Your task to perform on an android device: turn on the 24-hour format for clock Image 0: 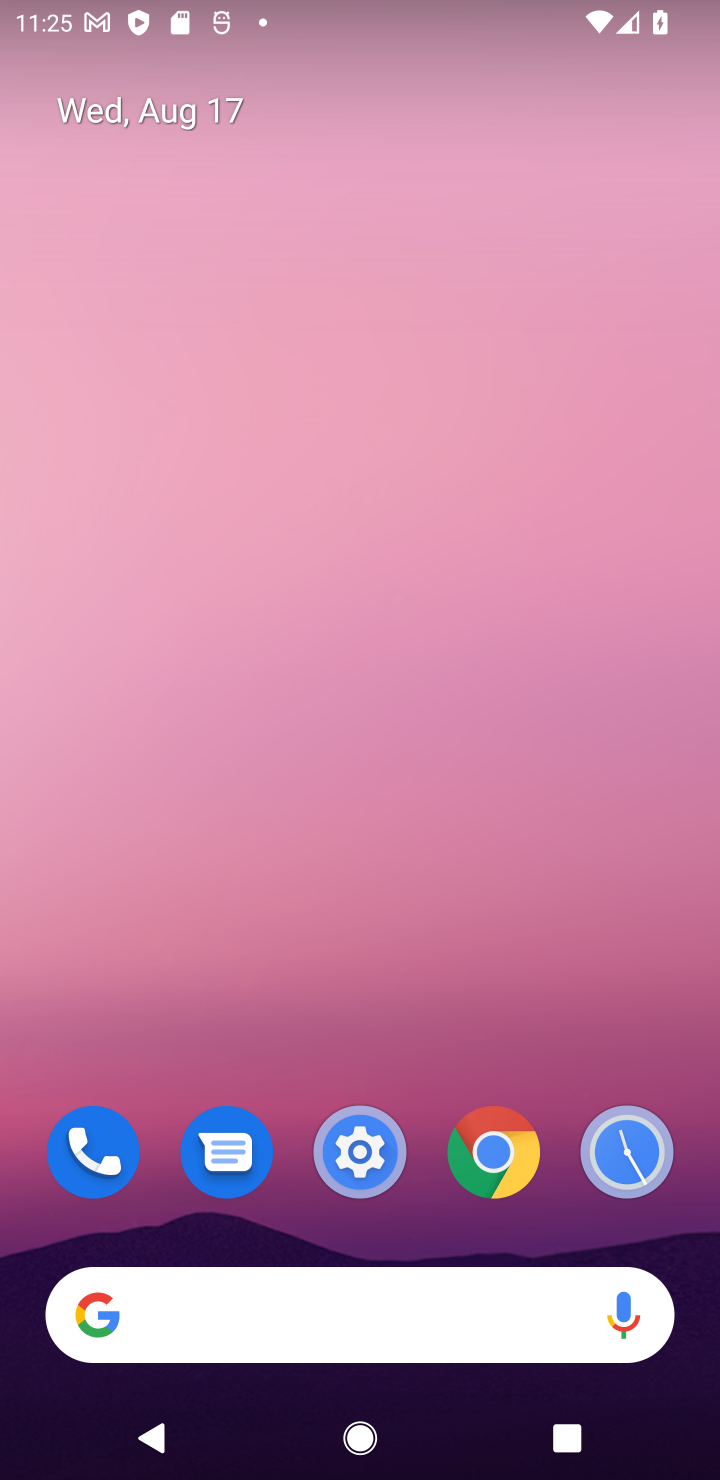
Step 0: drag from (692, 1224) to (338, 90)
Your task to perform on an android device: turn on the 24-hour format for clock Image 1: 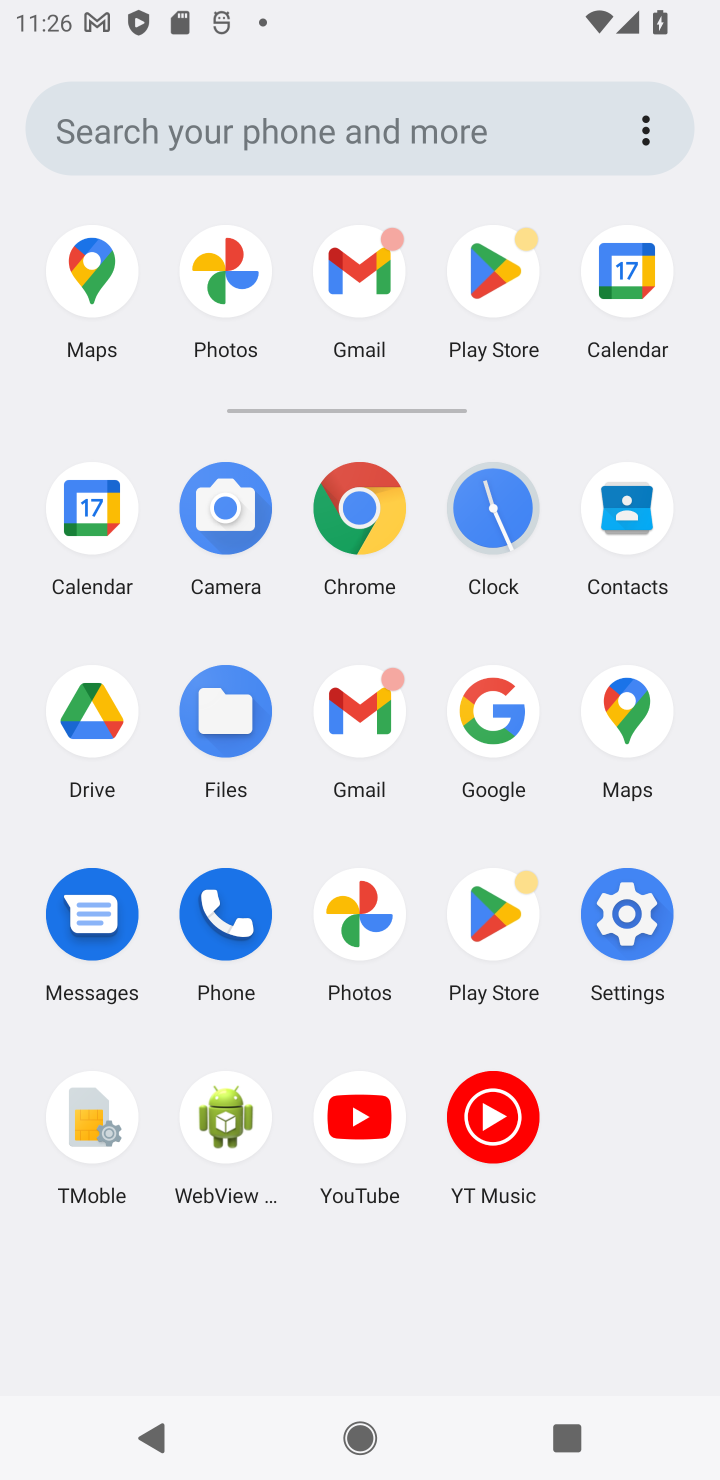
Step 1: click (462, 535)
Your task to perform on an android device: turn on the 24-hour format for clock Image 2: 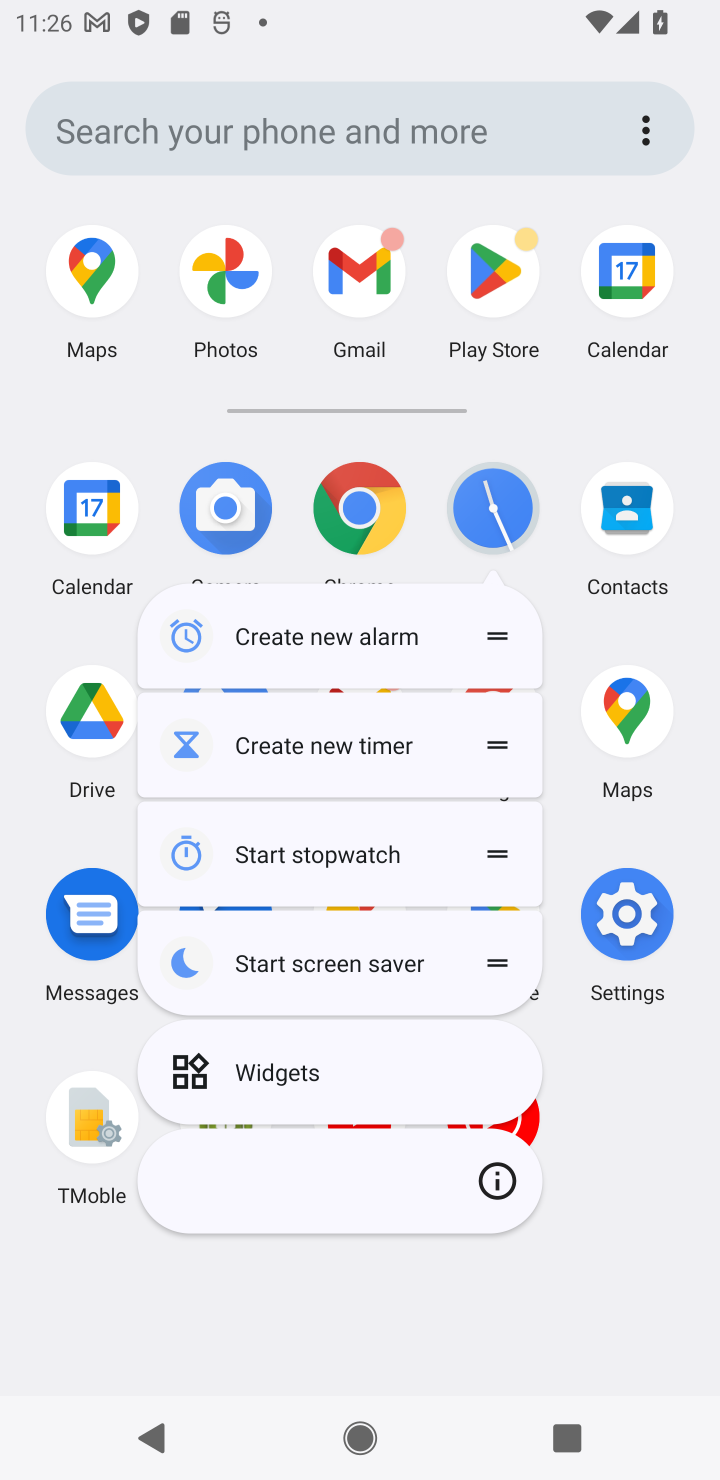
Step 2: click (504, 517)
Your task to perform on an android device: turn on the 24-hour format for clock Image 3: 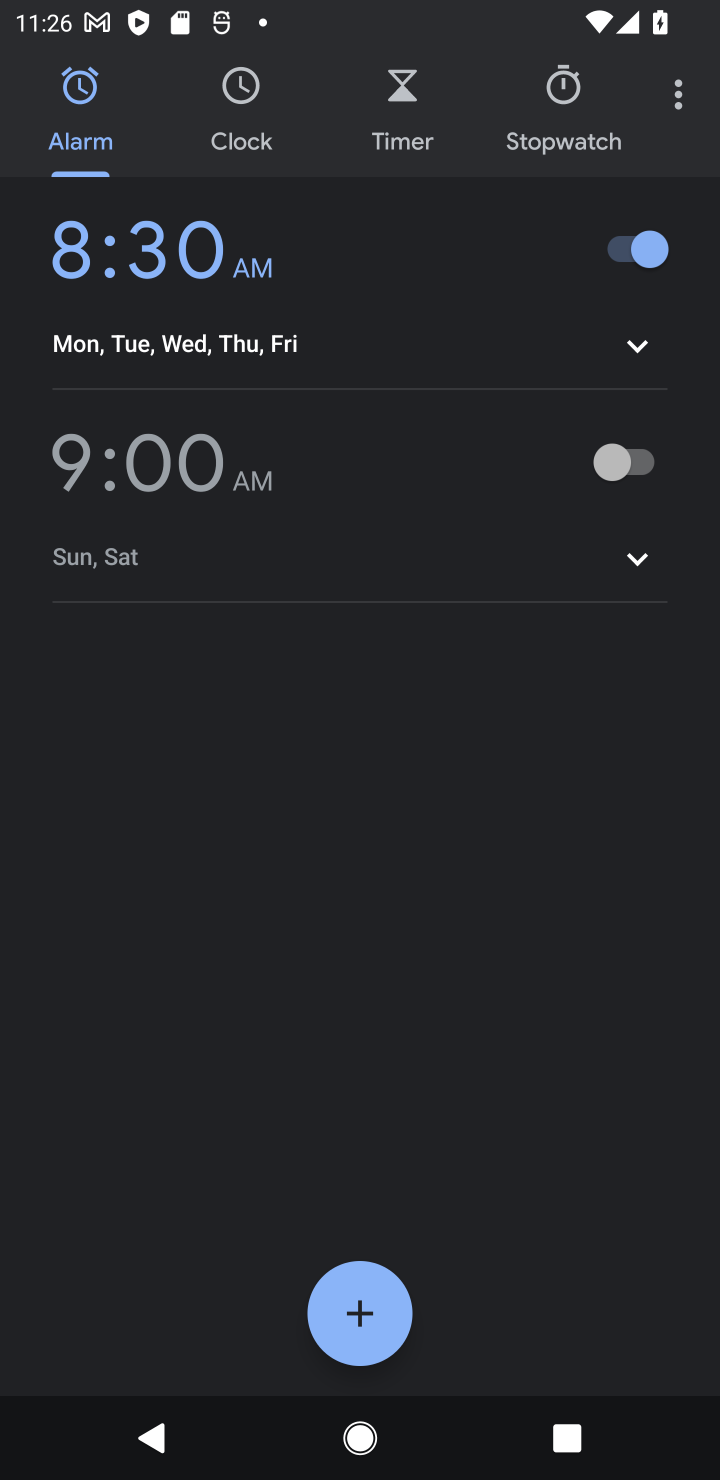
Step 3: click (681, 107)
Your task to perform on an android device: turn on the 24-hour format for clock Image 4: 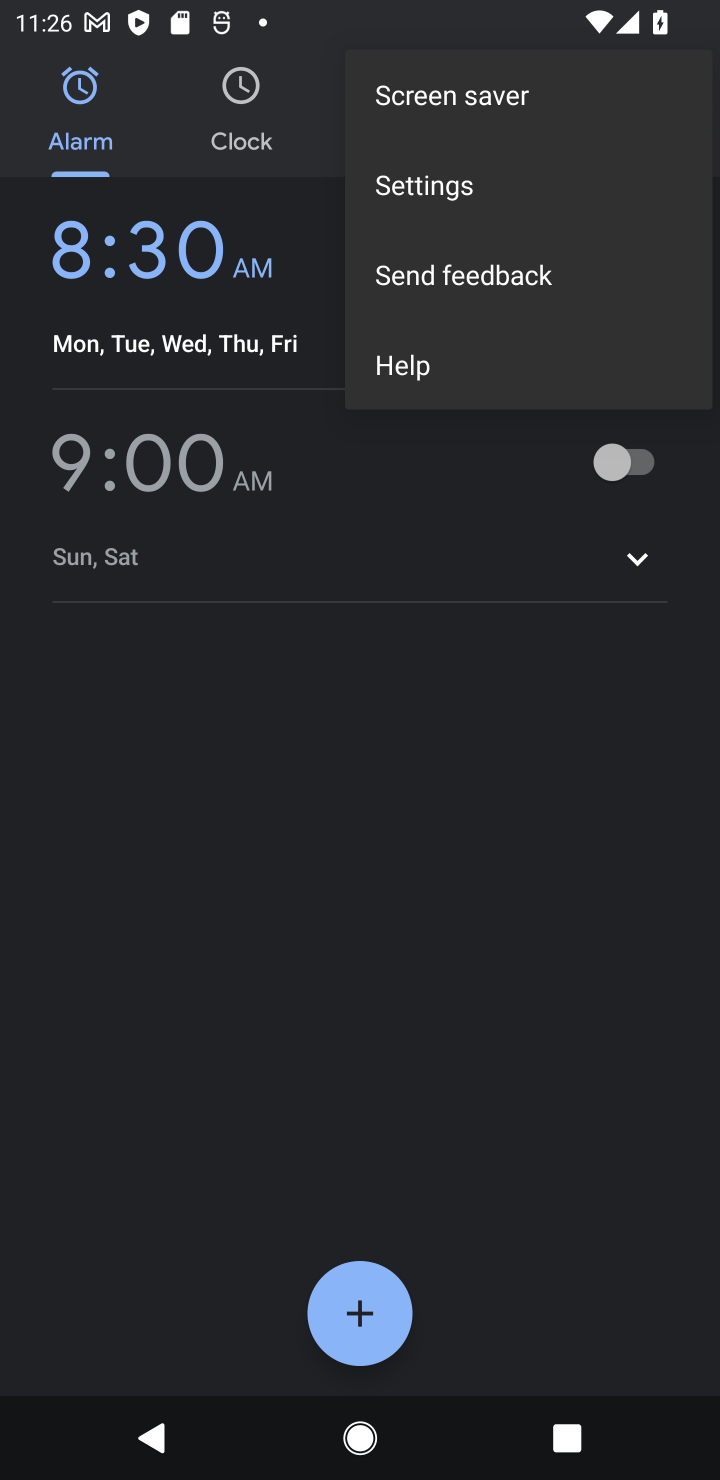
Step 4: click (456, 214)
Your task to perform on an android device: turn on the 24-hour format for clock Image 5: 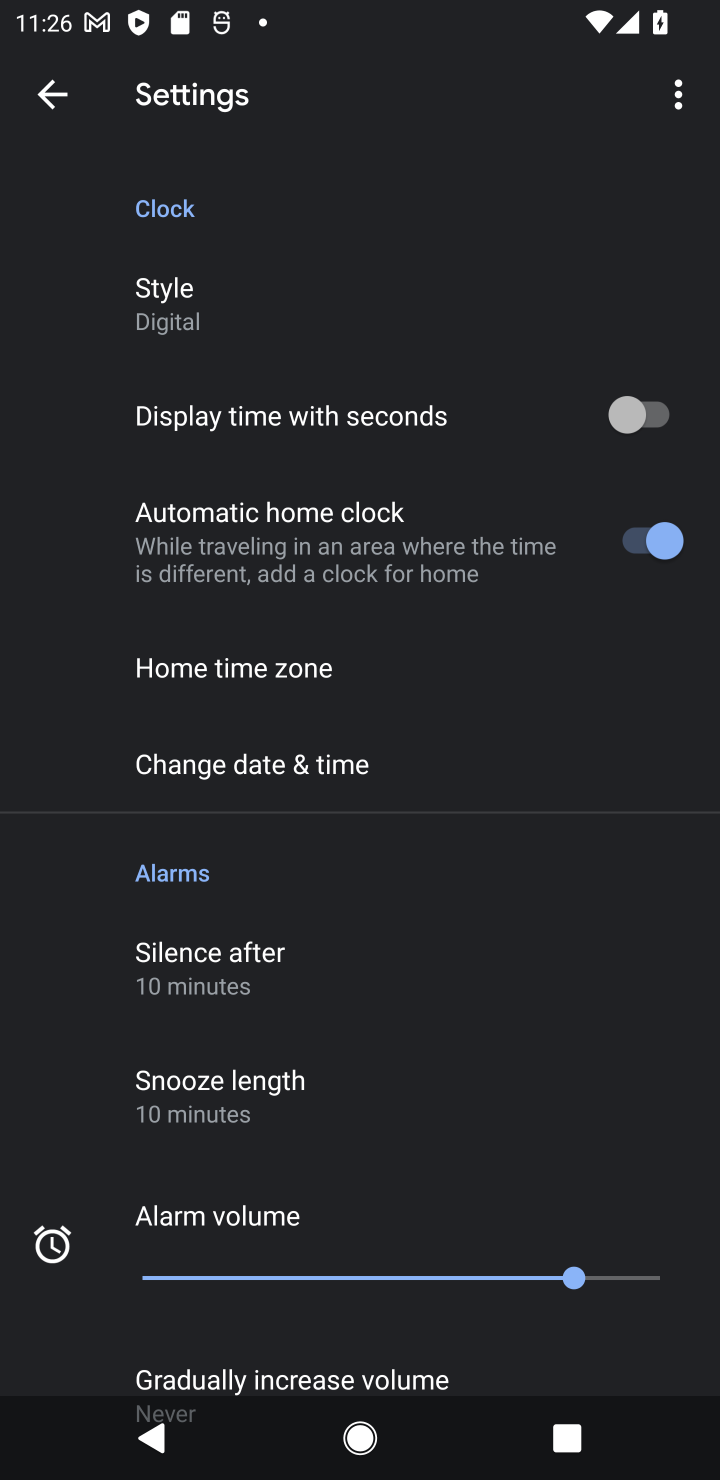
Step 5: click (350, 769)
Your task to perform on an android device: turn on the 24-hour format for clock Image 6: 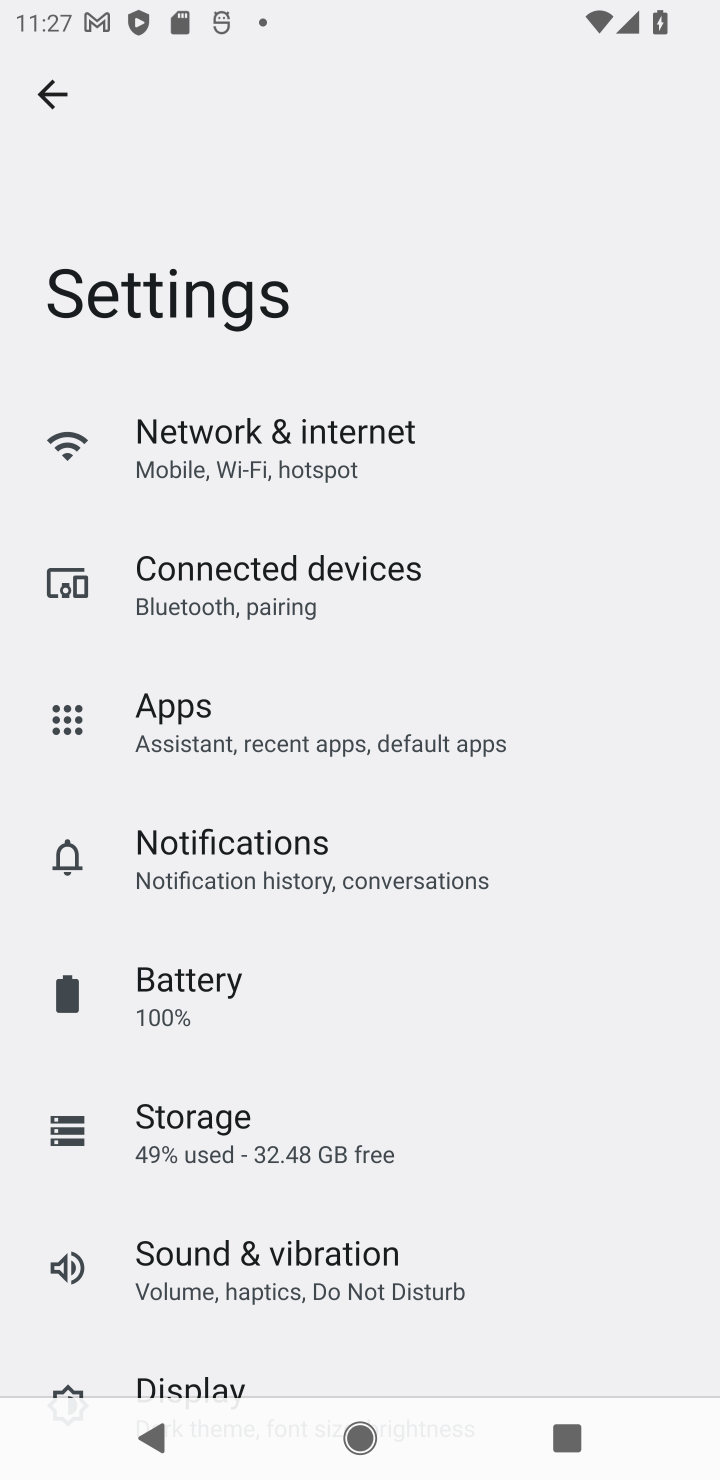
Step 6: task complete